Your task to perform on an android device: What's the weather? Image 0: 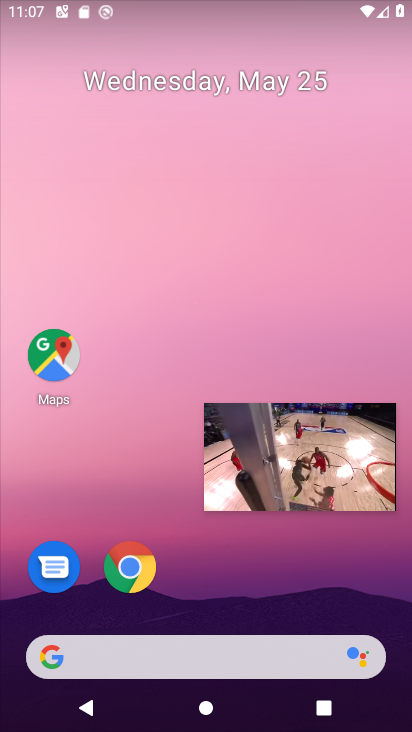
Step 0: click (367, 437)
Your task to perform on an android device: What's the weather? Image 1: 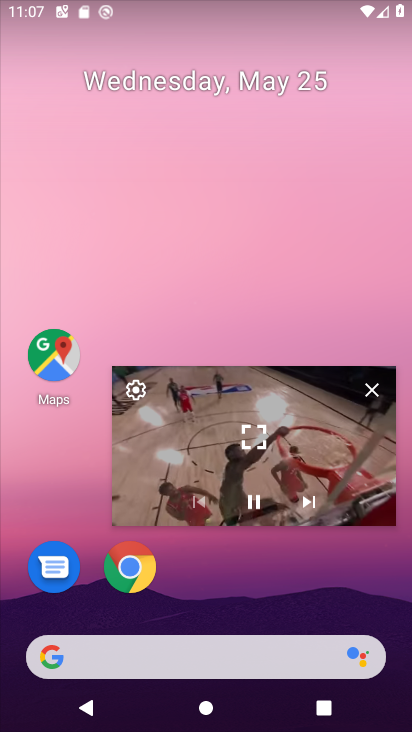
Step 1: click (361, 374)
Your task to perform on an android device: What's the weather? Image 2: 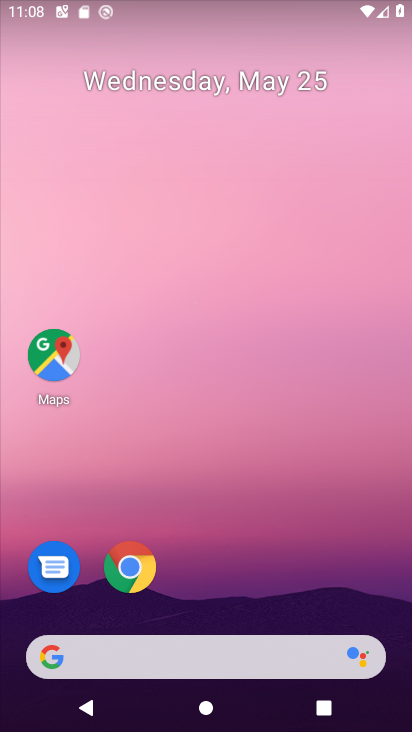
Step 2: click (216, 648)
Your task to perform on an android device: What's the weather? Image 3: 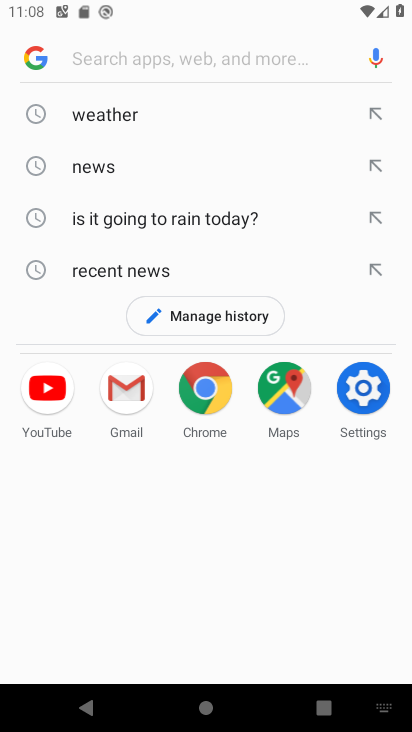
Step 3: click (129, 114)
Your task to perform on an android device: What's the weather? Image 4: 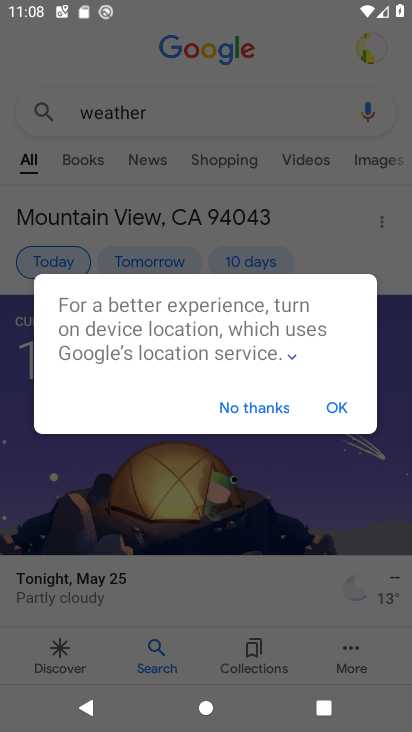
Step 4: click (343, 410)
Your task to perform on an android device: What's the weather? Image 5: 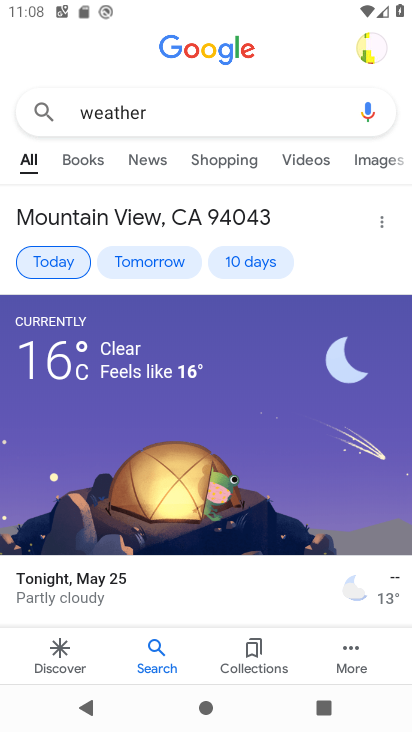
Step 5: task complete